Your task to perform on an android device: Add "rayovac triple a" to the cart on walmart.com Image 0: 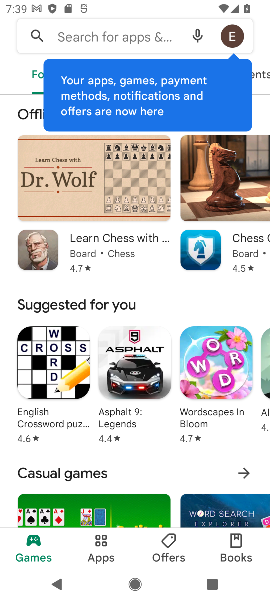
Step 0: press home button
Your task to perform on an android device: Add "rayovac triple a" to the cart on walmart.com Image 1: 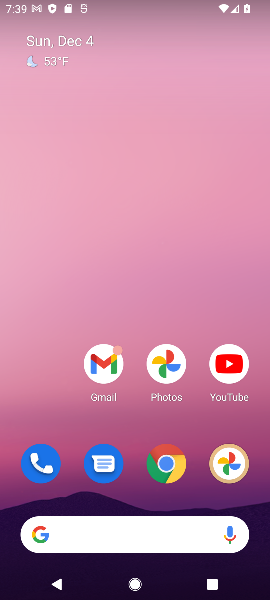
Step 1: click (142, 521)
Your task to perform on an android device: Add "rayovac triple a" to the cart on walmart.com Image 2: 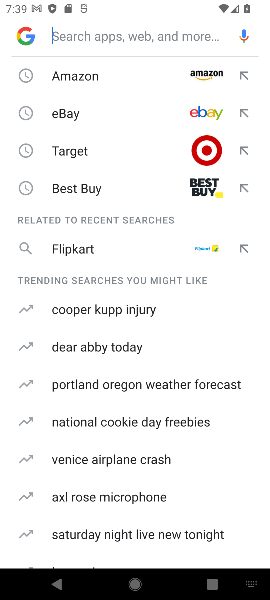
Step 2: type "walmart"
Your task to perform on an android device: Add "rayovac triple a" to the cart on walmart.com Image 3: 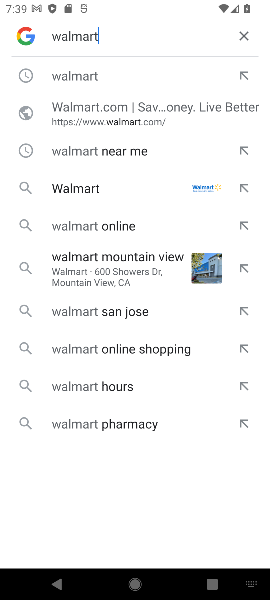
Step 3: click (84, 101)
Your task to perform on an android device: Add "rayovac triple a" to the cart on walmart.com Image 4: 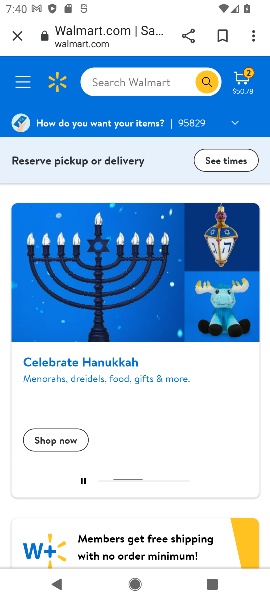
Step 4: click (127, 88)
Your task to perform on an android device: Add "rayovac triple a" to the cart on walmart.com Image 5: 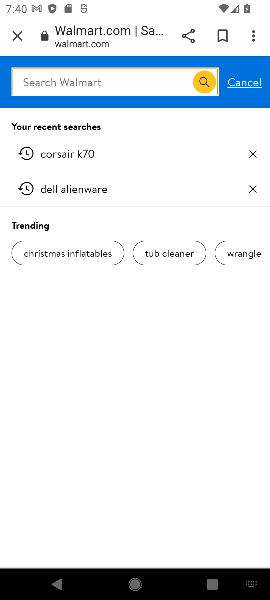
Step 5: type "rayovac triple a"
Your task to perform on an android device: Add "rayovac triple a" to the cart on walmart.com Image 6: 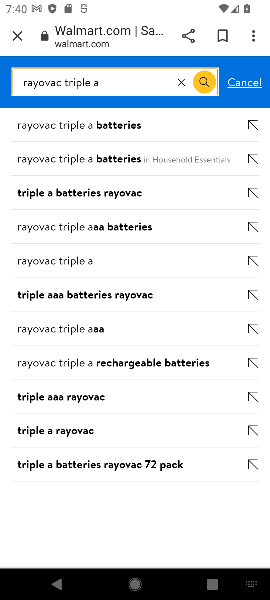
Step 6: click (149, 135)
Your task to perform on an android device: Add "rayovac triple a" to the cart on walmart.com Image 7: 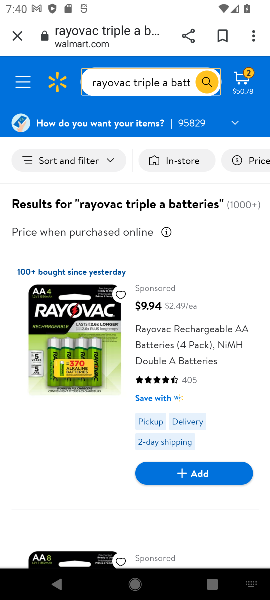
Step 7: click (197, 466)
Your task to perform on an android device: Add "rayovac triple a" to the cart on walmart.com Image 8: 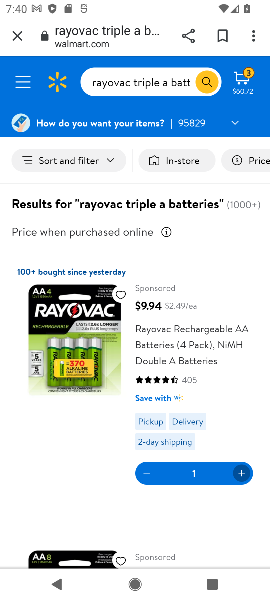
Step 8: task complete